Your task to perform on an android device: open the mobile data screen to see how much data has been used Image 0: 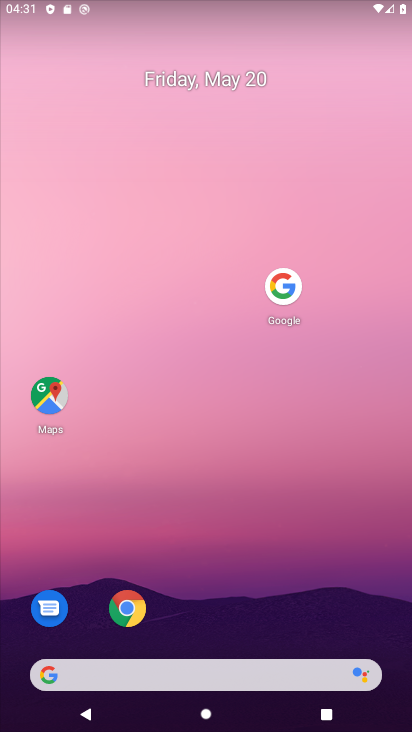
Step 0: drag from (214, 642) to (137, 145)
Your task to perform on an android device: open the mobile data screen to see how much data has been used Image 1: 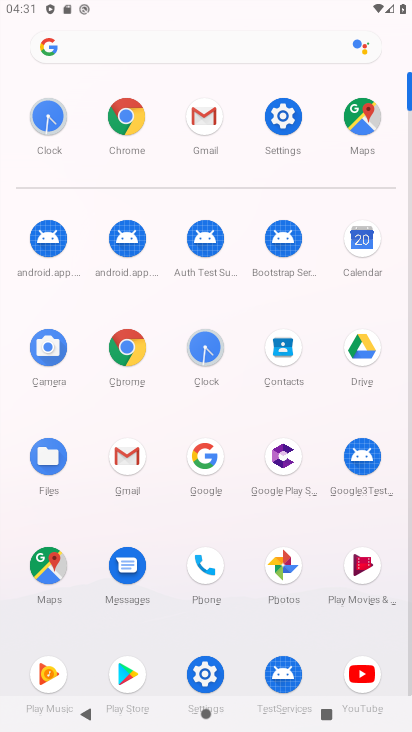
Step 1: click (287, 121)
Your task to perform on an android device: open the mobile data screen to see how much data has been used Image 2: 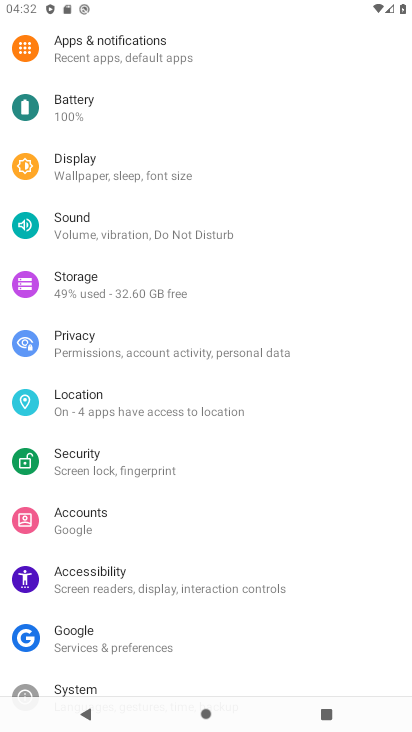
Step 2: drag from (64, 67) to (100, 411)
Your task to perform on an android device: open the mobile data screen to see how much data has been used Image 3: 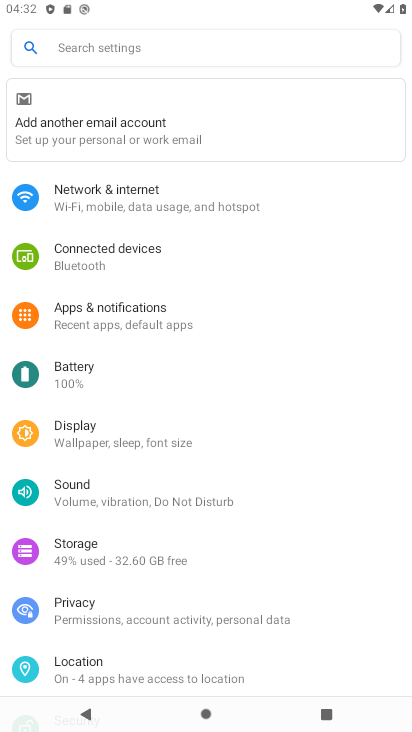
Step 3: click (117, 216)
Your task to perform on an android device: open the mobile data screen to see how much data has been used Image 4: 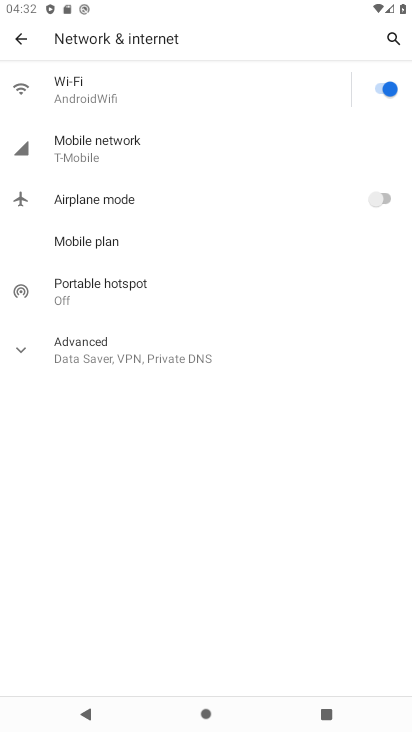
Step 4: click (97, 148)
Your task to perform on an android device: open the mobile data screen to see how much data has been used Image 5: 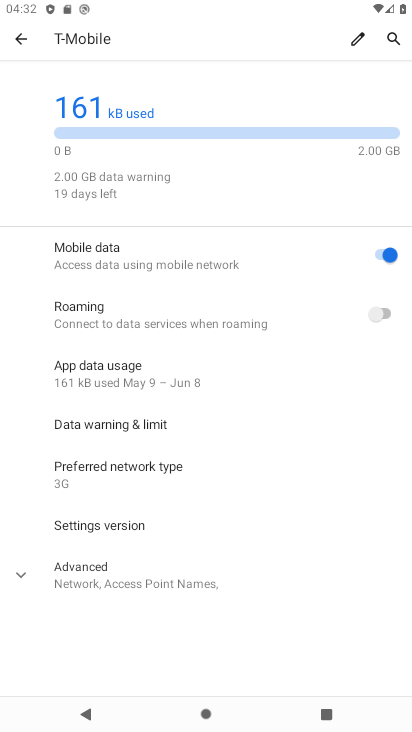
Step 5: task complete